Your task to perform on an android device: Search for pizza restaurants on Maps Image 0: 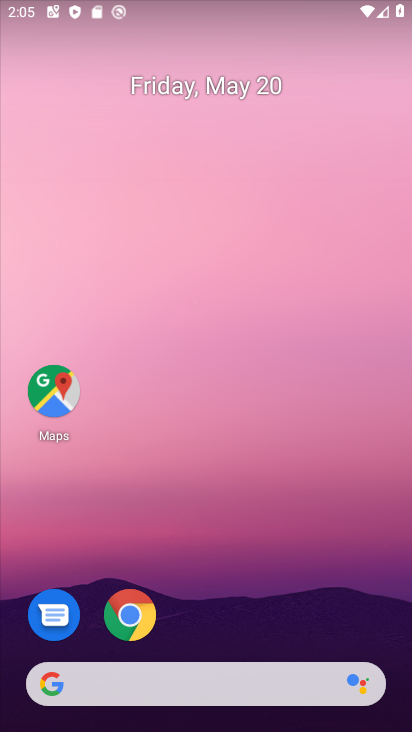
Step 0: click (73, 383)
Your task to perform on an android device: Search for pizza restaurants on Maps Image 1: 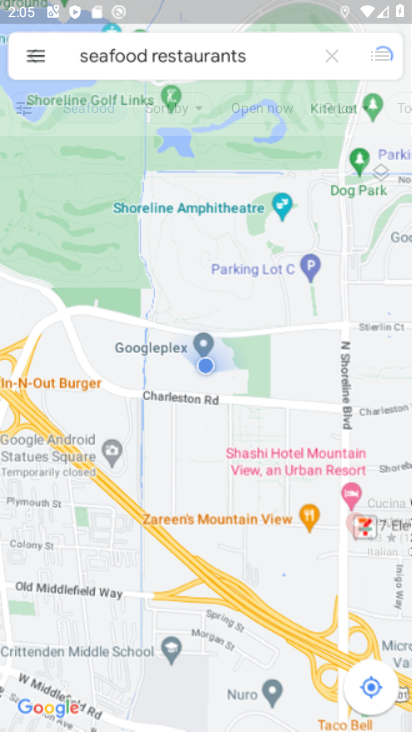
Step 1: click (278, 64)
Your task to perform on an android device: Search for pizza restaurants on Maps Image 2: 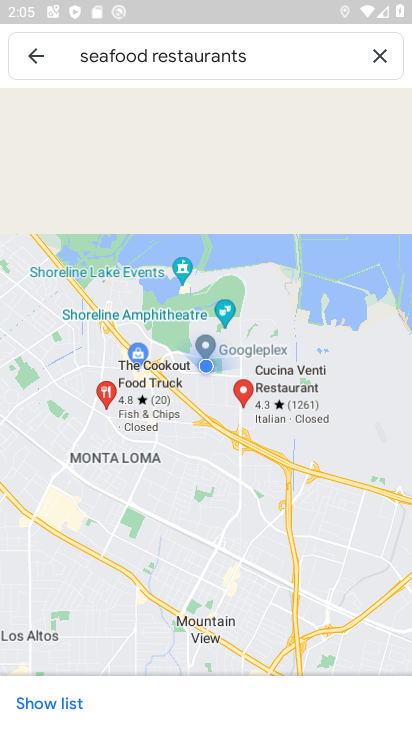
Step 2: click (323, 56)
Your task to perform on an android device: Search for pizza restaurants on Maps Image 3: 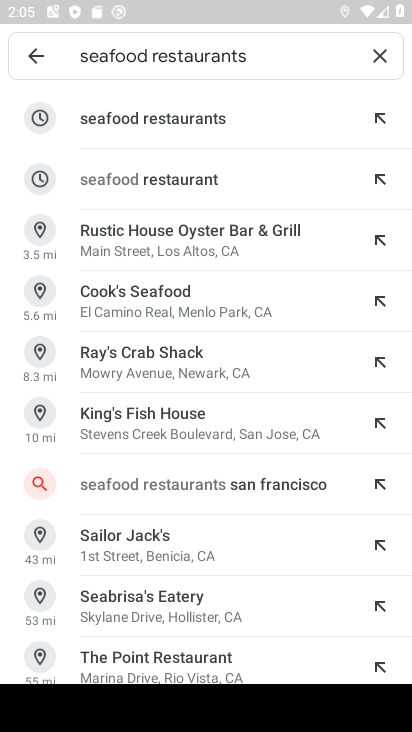
Step 3: click (379, 49)
Your task to perform on an android device: Search for pizza restaurants on Maps Image 4: 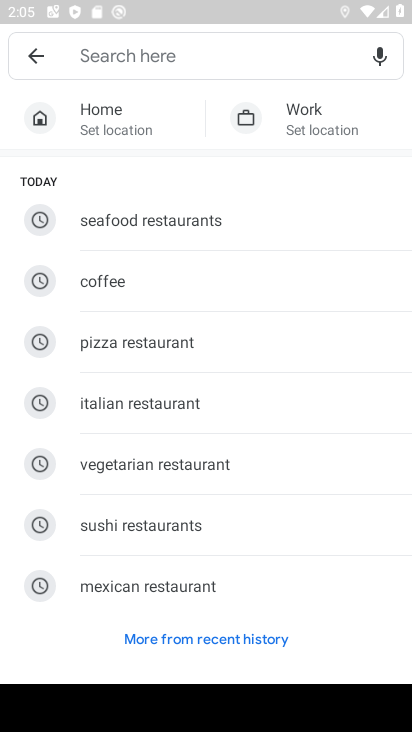
Step 4: click (241, 63)
Your task to perform on an android device: Search for pizza restaurants on Maps Image 5: 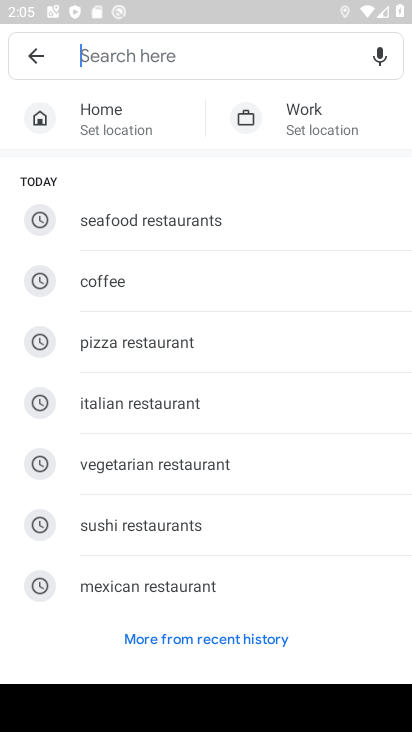
Step 5: click (164, 352)
Your task to perform on an android device: Search for pizza restaurants on Maps Image 6: 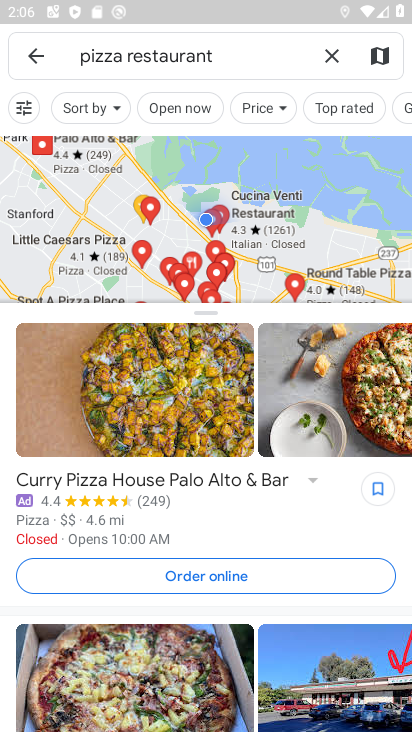
Step 6: task complete